Your task to perform on an android device: Find coffee shops on Maps Image 0: 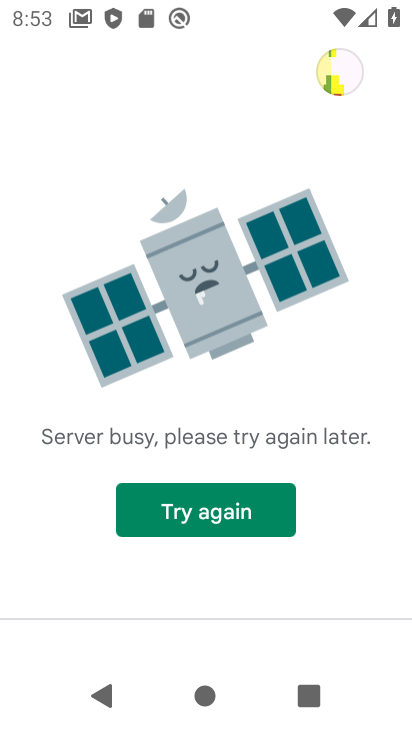
Step 0: press home button
Your task to perform on an android device: Find coffee shops on Maps Image 1: 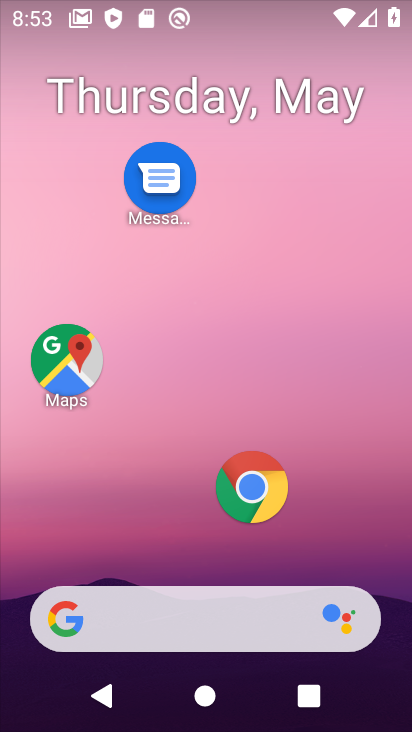
Step 1: click (83, 363)
Your task to perform on an android device: Find coffee shops on Maps Image 2: 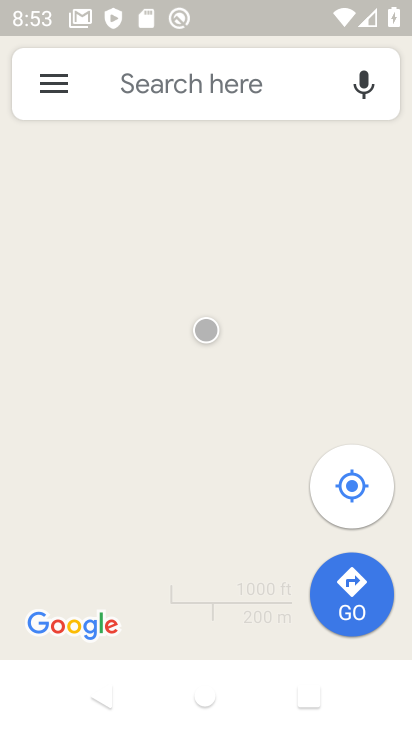
Step 2: click (191, 85)
Your task to perform on an android device: Find coffee shops on Maps Image 3: 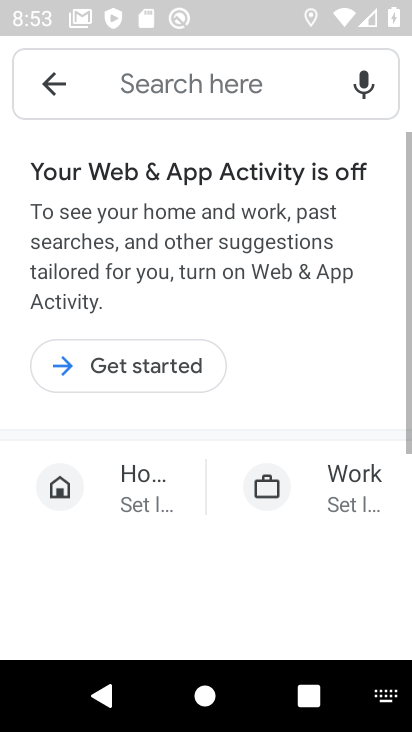
Step 3: click (143, 367)
Your task to perform on an android device: Find coffee shops on Maps Image 4: 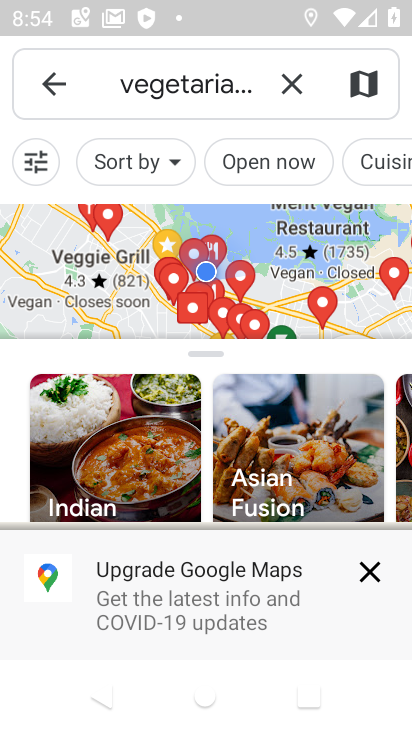
Step 4: press home button
Your task to perform on an android device: Find coffee shops on Maps Image 5: 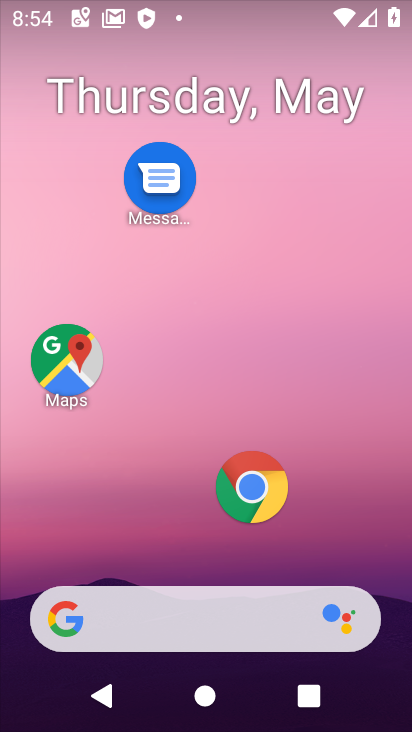
Step 5: click (57, 361)
Your task to perform on an android device: Find coffee shops on Maps Image 6: 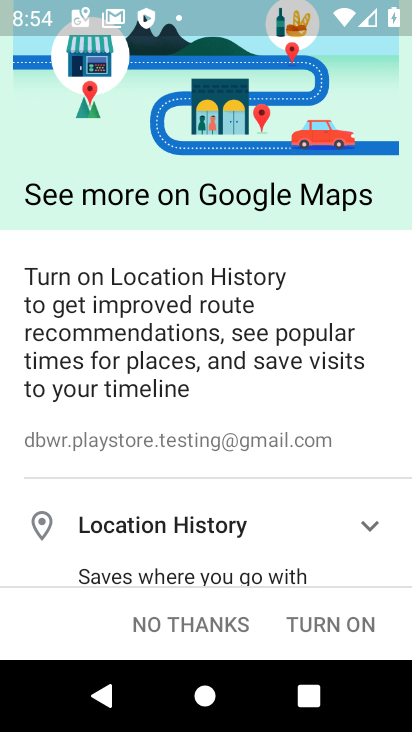
Step 6: click (328, 635)
Your task to perform on an android device: Find coffee shops on Maps Image 7: 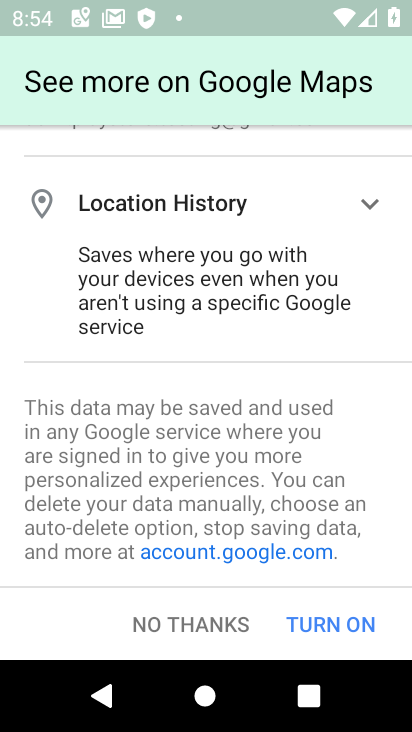
Step 7: click (337, 618)
Your task to perform on an android device: Find coffee shops on Maps Image 8: 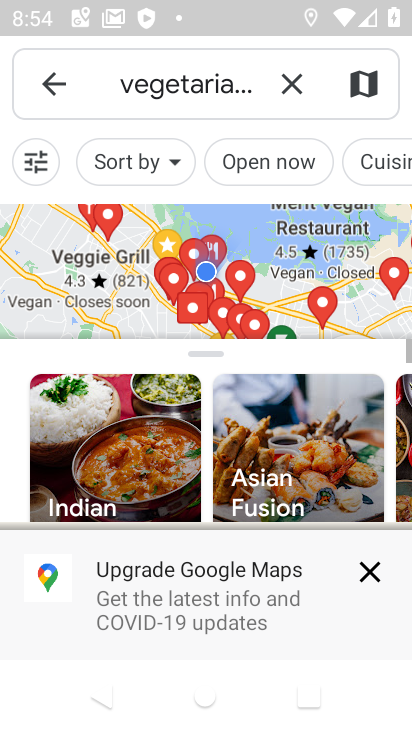
Step 8: click (333, 620)
Your task to perform on an android device: Find coffee shops on Maps Image 9: 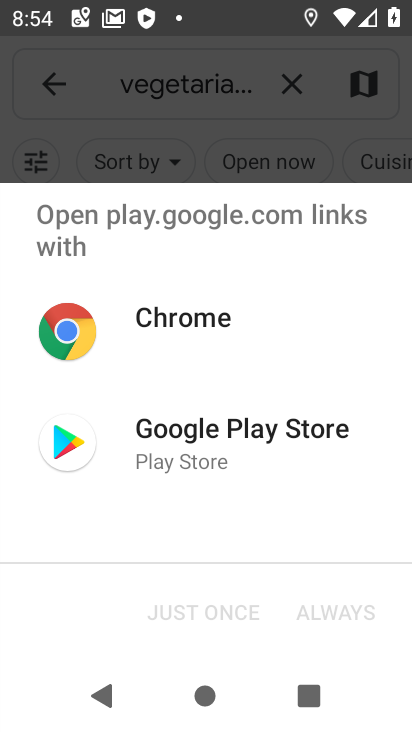
Step 9: press back button
Your task to perform on an android device: Find coffee shops on Maps Image 10: 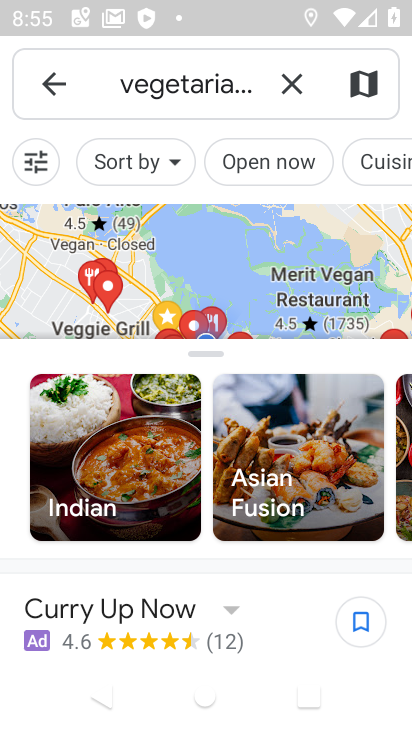
Step 10: click (292, 93)
Your task to perform on an android device: Find coffee shops on Maps Image 11: 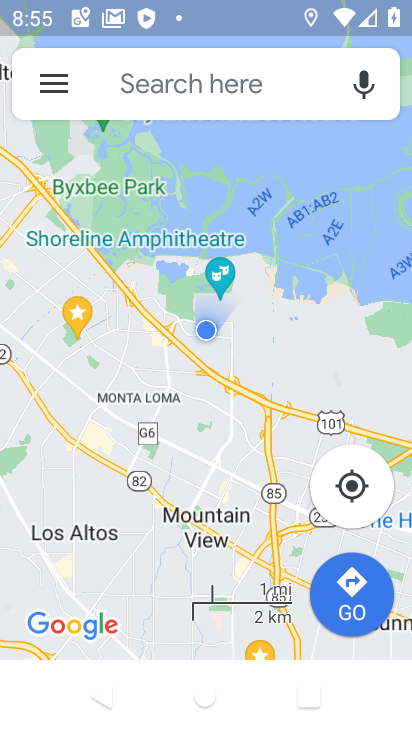
Step 11: click (216, 71)
Your task to perform on an android device: Find coffee shops on Maps Image 12: 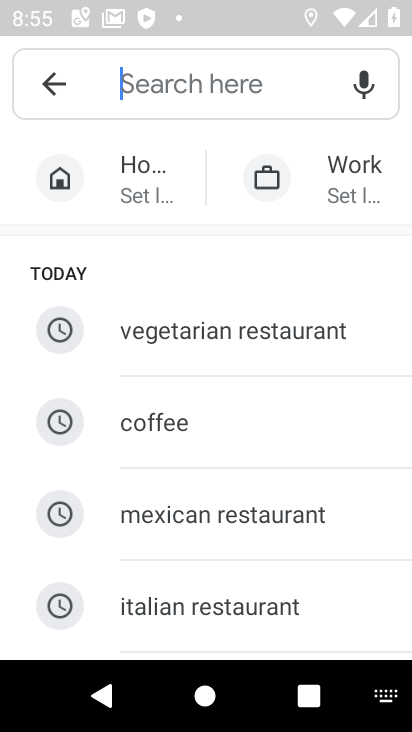
Step 12: click (162, 427)
Your task to perform on an android device: Find coffee shops on Maps Image 13: 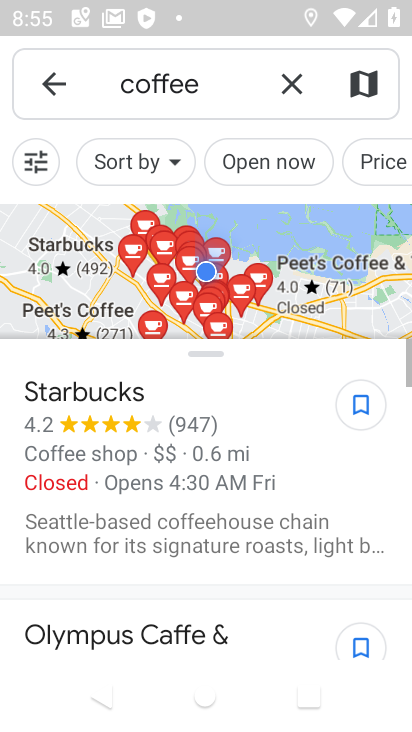
Step 13: task complete